Your task to perform on an android device: turn off data saver in the chrome app Image 0: 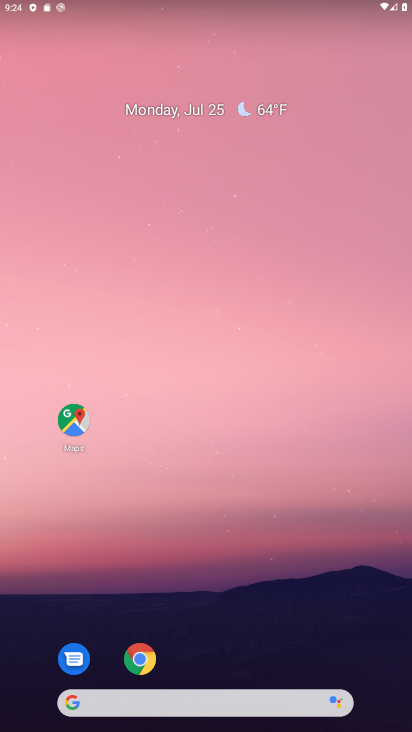
Step 0: press home button
Your task to perform on an android device: turn off data saver in the chrome app Image 1: 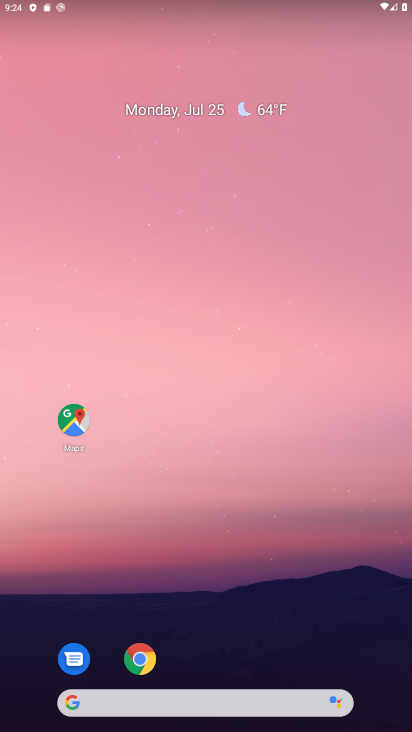
Step 1: drag from (343, 619) to (346, 101)
Your task to perform on an android device: turn off data saver in the chrome app Image 2: 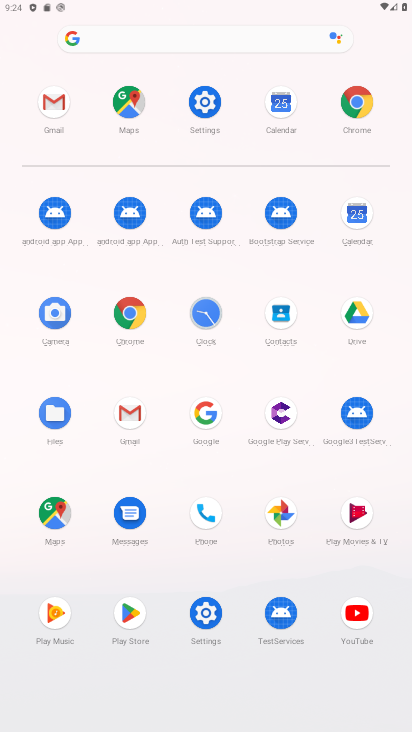
Step 2: click (137, 320)
Your task to perform on an android device: turn off data saver in the chrome app Image 3: 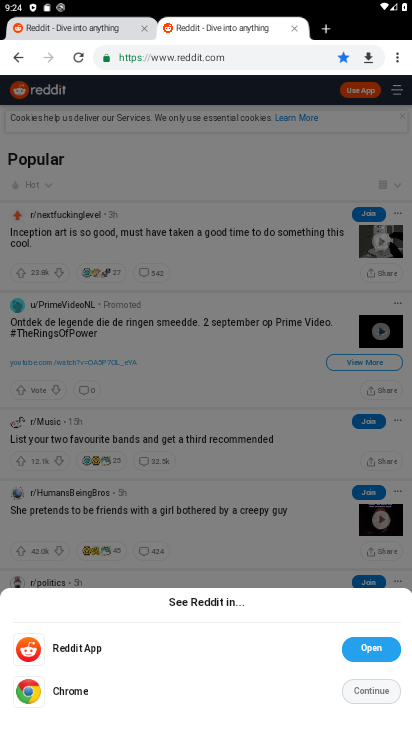
Step 3: click (400, 60)
Your task to perform on an android device: turn off data saver in the chrome app Image 4: 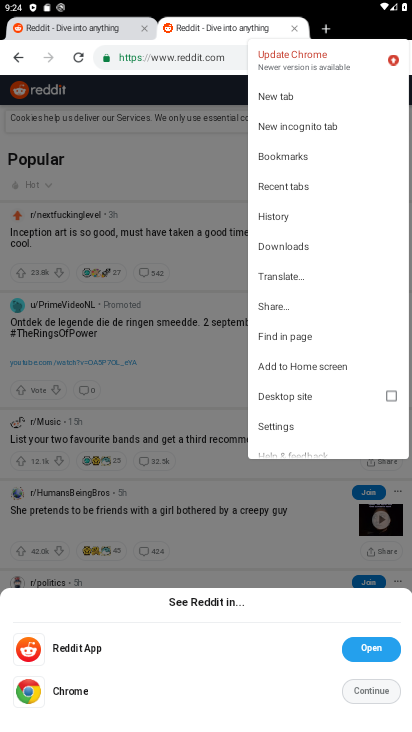
Step 4: click (287, 431)
Your task to perform on an android device: turn off data saver in the chrome app Image 5: 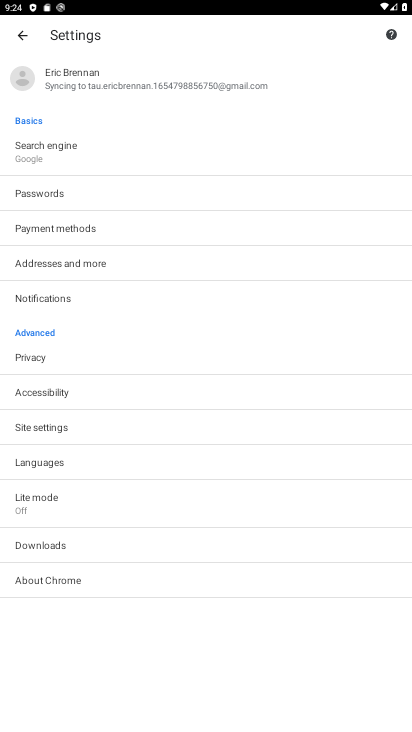
Step 5: click (181, 496)
Your task to perform on an android device: turn off data saver in the chrome app Image 6: 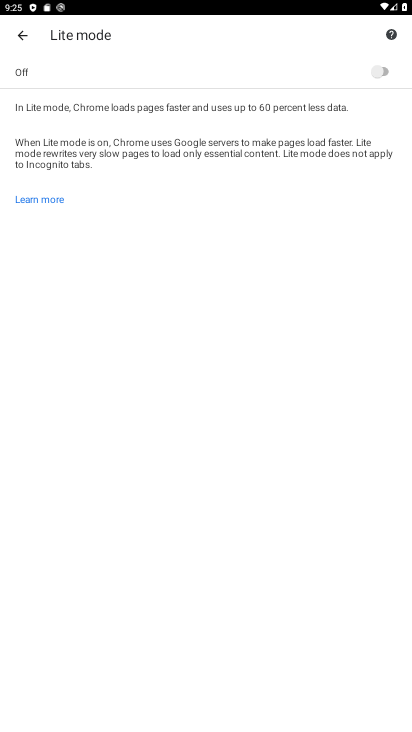
Step 6: task complete